Your task to perform on an android device: Go to Reddit.com Image 0: 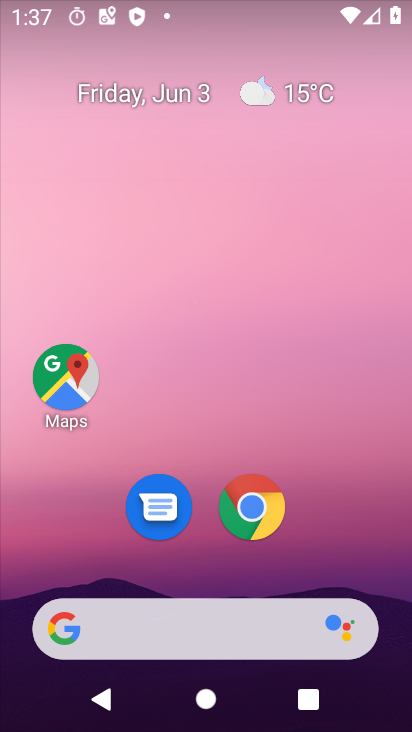
Step 0: drag from (405, 640) to (348, 72)
Your task to perform on an android device: Go to Reddit.com Image 1: 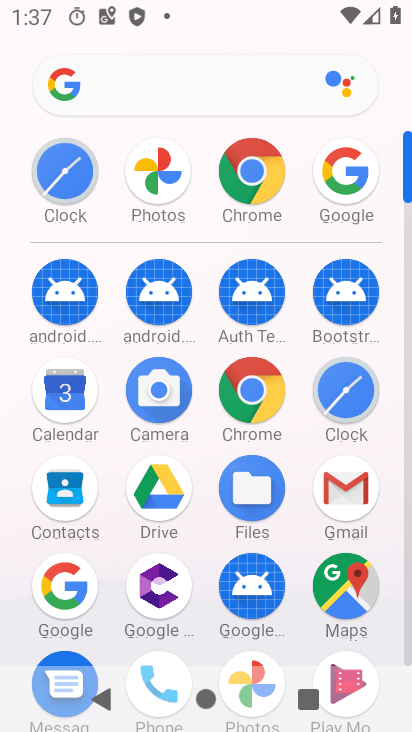
Step 1: click (64, 588)
Your task to perform on an android device: Go to Reddit.com Image 2: 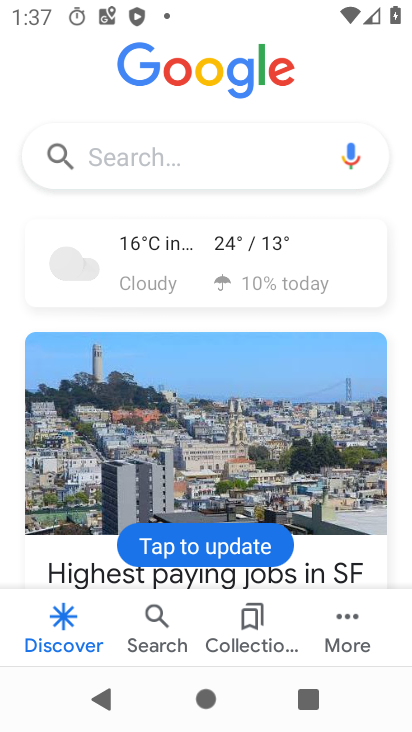
Step 2: click (168, 169)
Your task to perform on an android device: Go to Reddit.com Image 3: 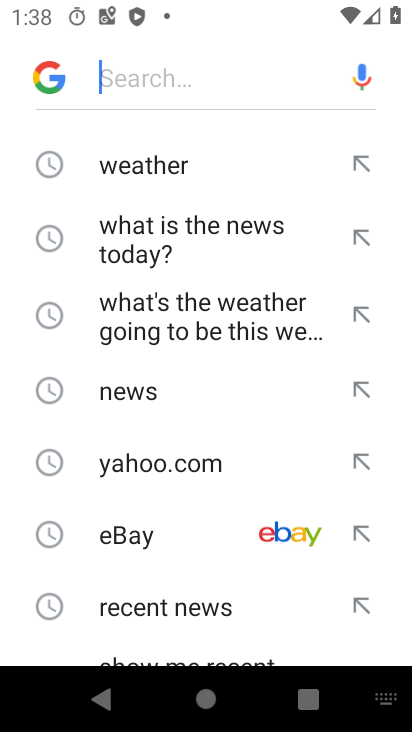
Step 3: drag from (169, 584) to (205, 151)
Your task to perform on an android device: Go to Reddit.com Image 4: 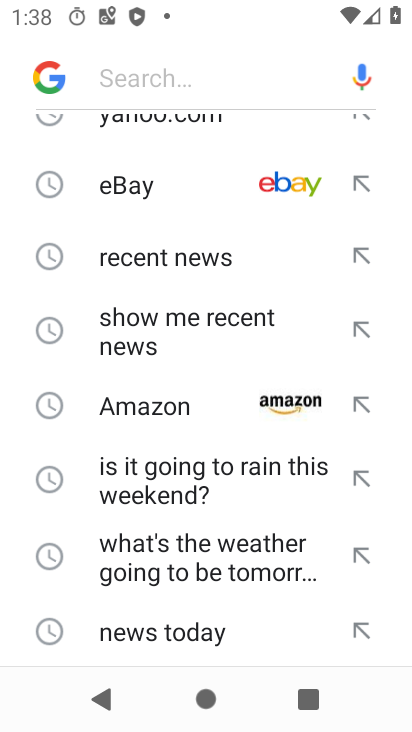
Step 4: drag from (137, 628) to (177, 159)
Your task to perform on an android device: Go to Reddit.com Image 5: 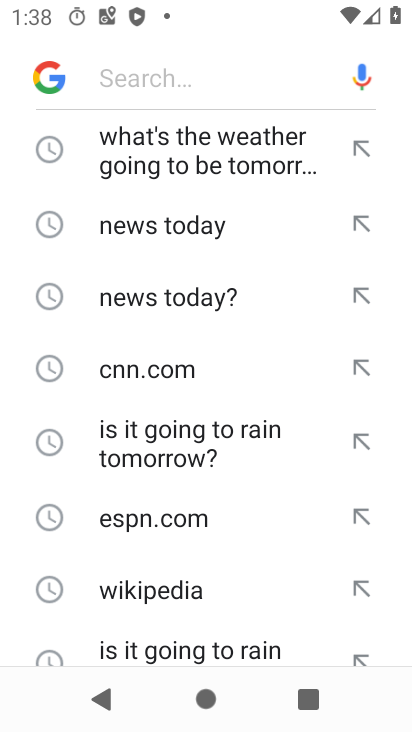
Step 5: drag from (140, 608) to (222, 153)
Your task to perform on an android device: Go to Reddit.com Image 6: 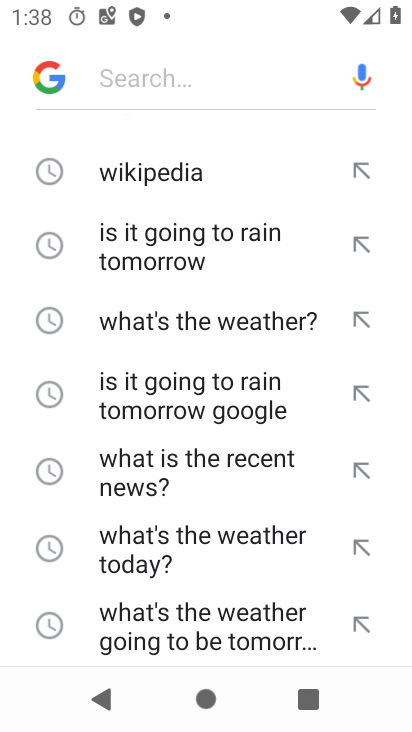
Step 6: drag from (163, 596) to (174, 145)
Your task to perform on an android device: Go to Reddit.com Image 7: 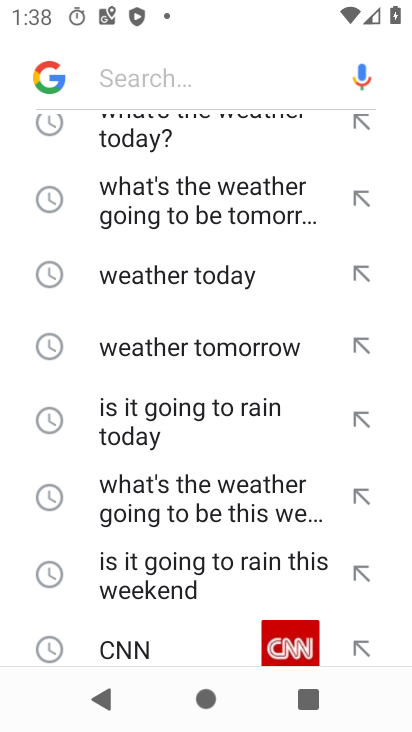
Step 7: drag from (154, 630) to (168, 171)
Your task to perform on an android device: Go to Reddit.com Image 8: 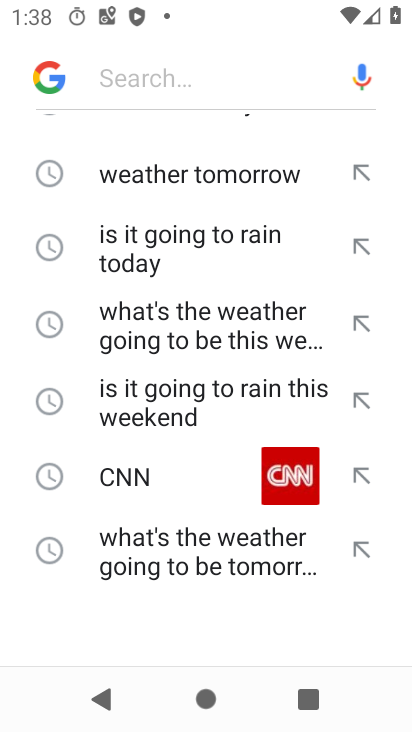
Step 8: type "reddit.com"
Your task to perform on an android device: Go to Reddit.com Image 9: 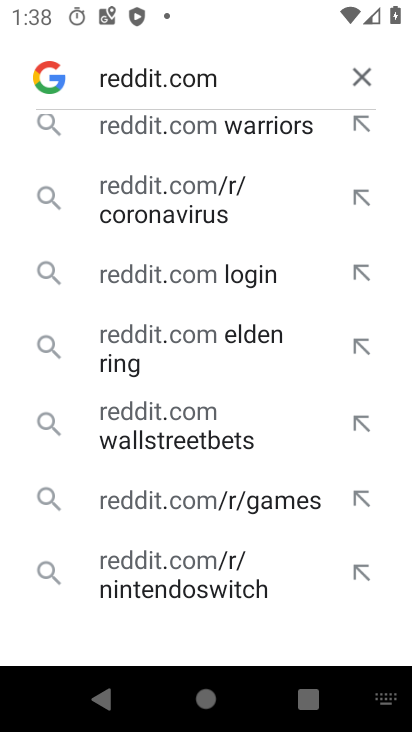
Step 9: click (244, 125)
Your task to perform on an android device: Go to Reddit.com Image 10: 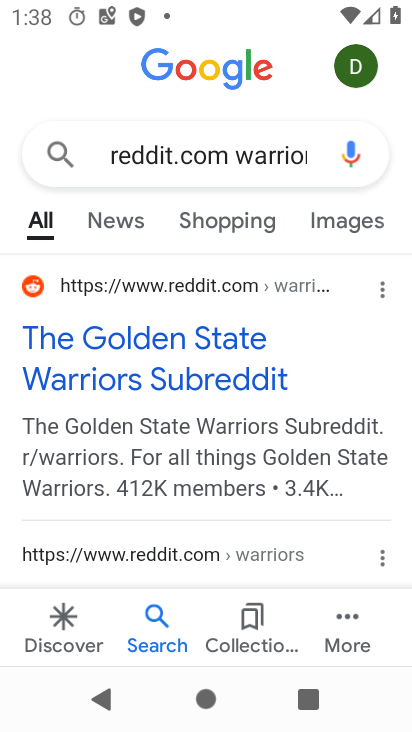
Step 10: task complete